Your task to perform on an android device: turn off priority inbox in the gmail app Image 0: 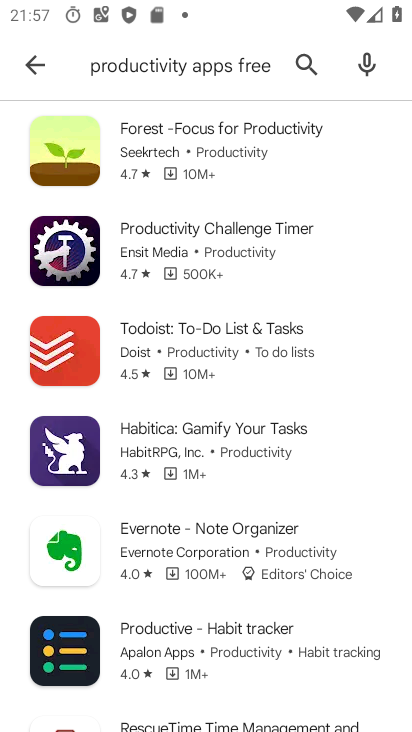
Step 0: press home button
Your task to perform on an android device: turn off priority inbox in the gmail app Image 1: 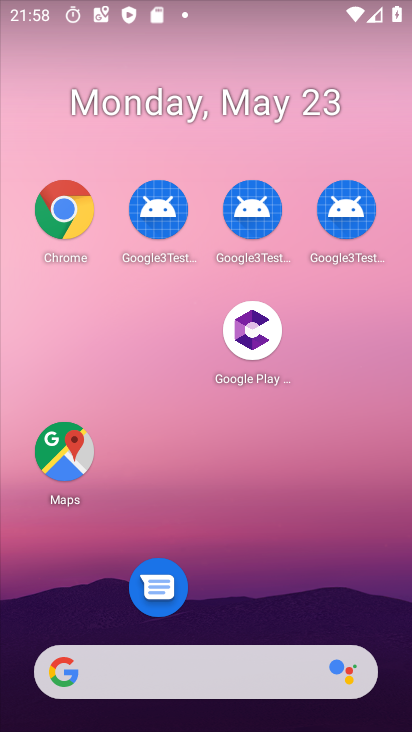
Step 1: drag from (286, 642) to (326, 34)
Your task to perform on an android device: turn off priority inbox in the gmail app Image 2: 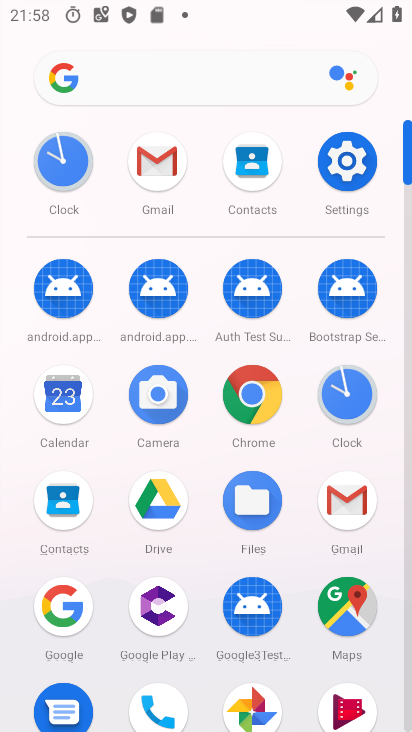
Step 2: click (151, 174)
Your task to perform on an android device: turn off priority inbox in the gmail app Image 3: 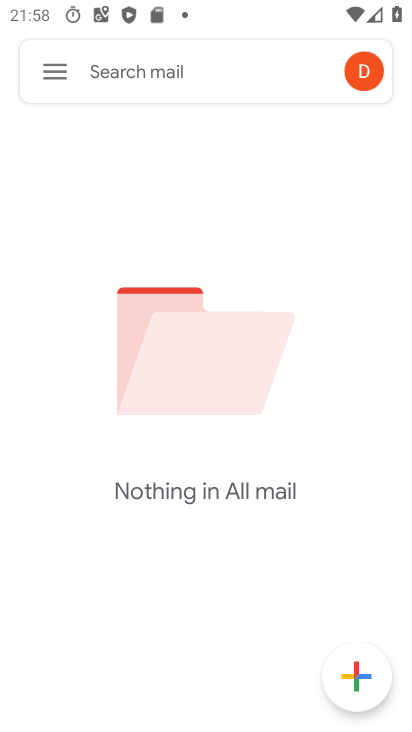
Step 3: click (44, 70)
Your task to perform on an android device: turn off priority inbox in the gmail app Image 4: 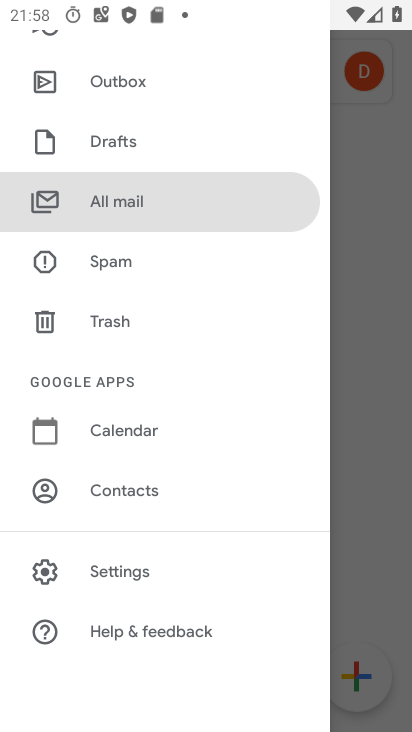
Step 4: click (152, 574)
Your task to perform on an android device: turn off priority inbox in the gmail app Image 5: 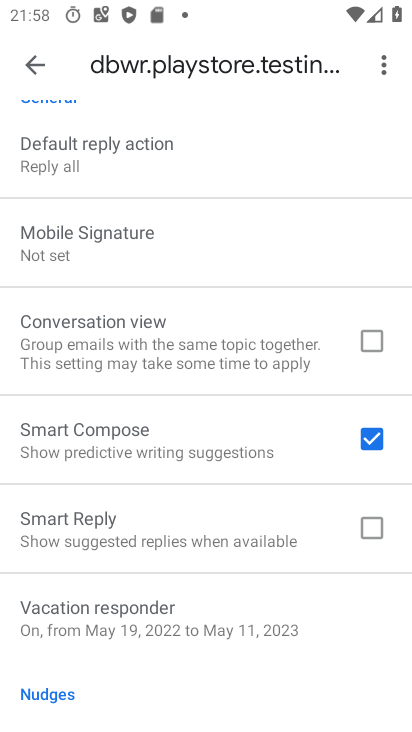
Step 5: drag from (160, 184) to (123, 627)
Your task to perform on an android device: turn off priority inbox in the gmail app Image 6: 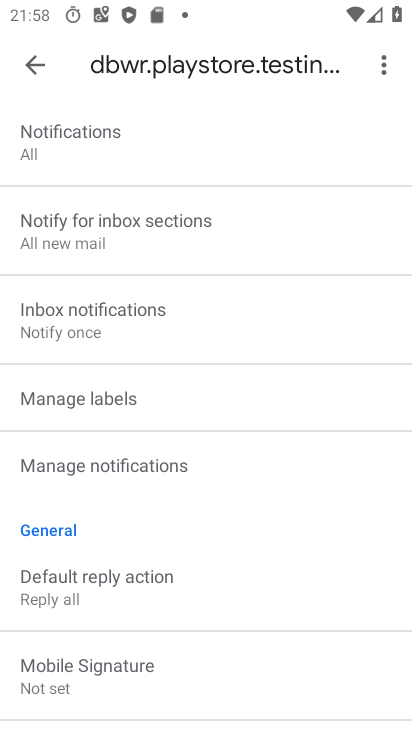
Step 6: drag from (122, 186) to (91, 595)
Your task to perform on an android device: turn off priority inbox in the gmail app Image 7: 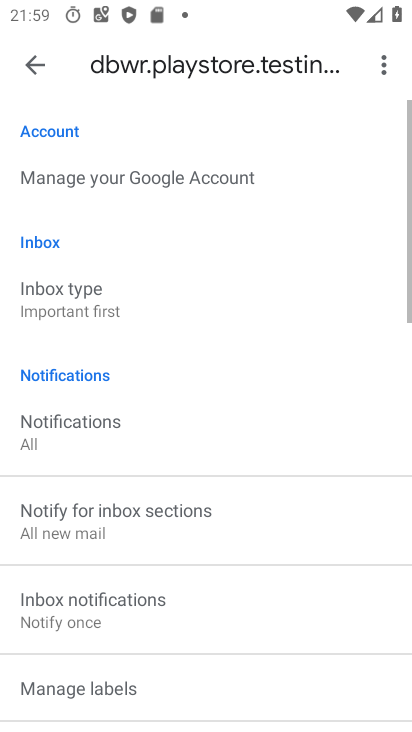
Step 7: click (90, 311)
Your task to perform on an android device: turn off priority inbox in the gmail app Image 8: 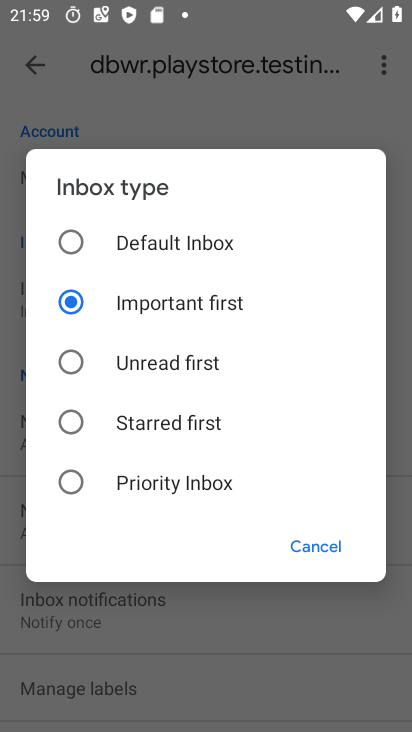
Step 8: click (332, 546)
Your task to perform on an android device: turn off priority inbox in the gmail app Image 9: 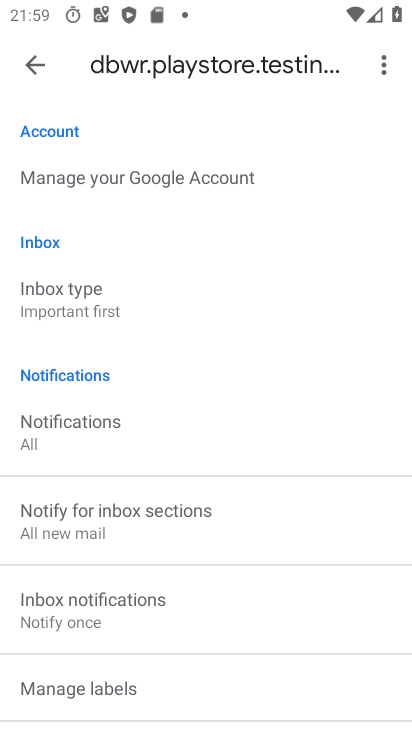
Step 9: task complete